Your task to perform on an android device: Look up the book "The Girl on the Train". Image 0: 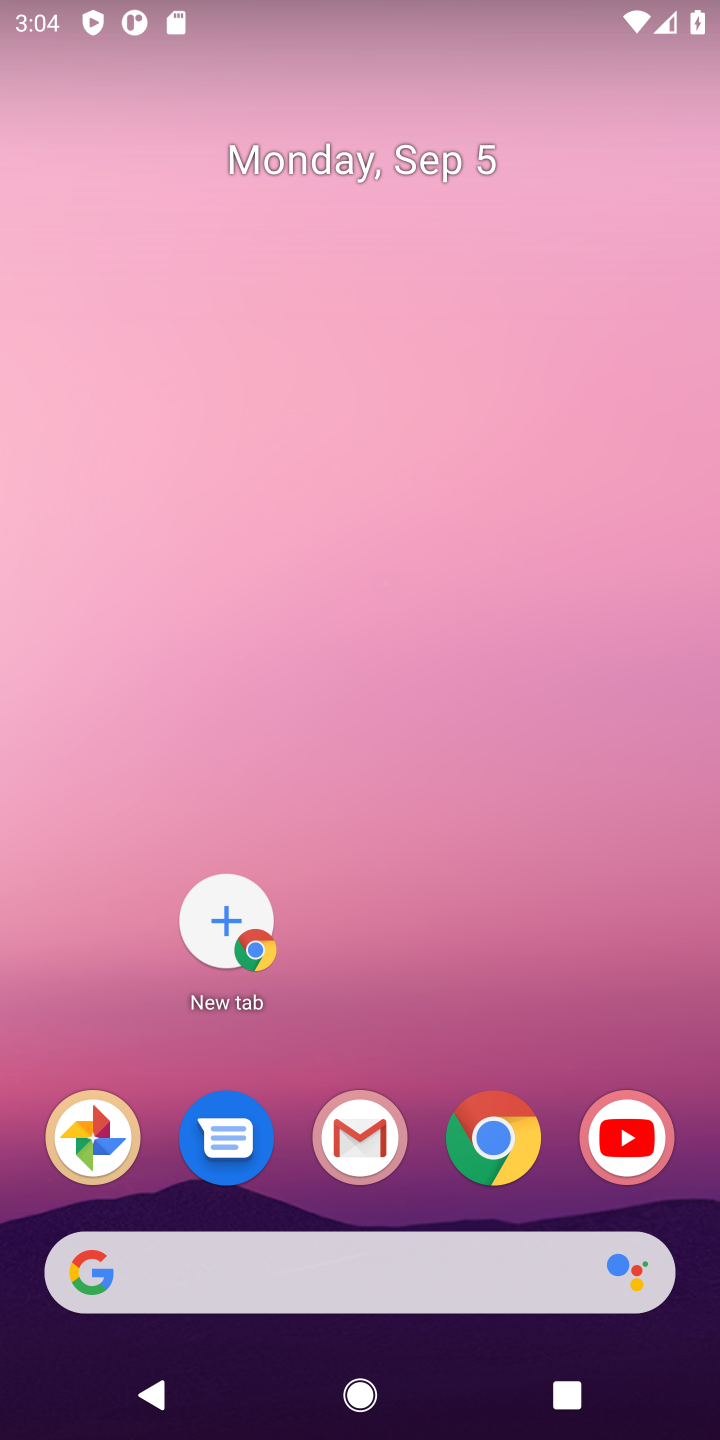
Step 0: click (484, 1143)
Your task to perform on an android device: Look up the book "The Girl on the Train". Image 1: 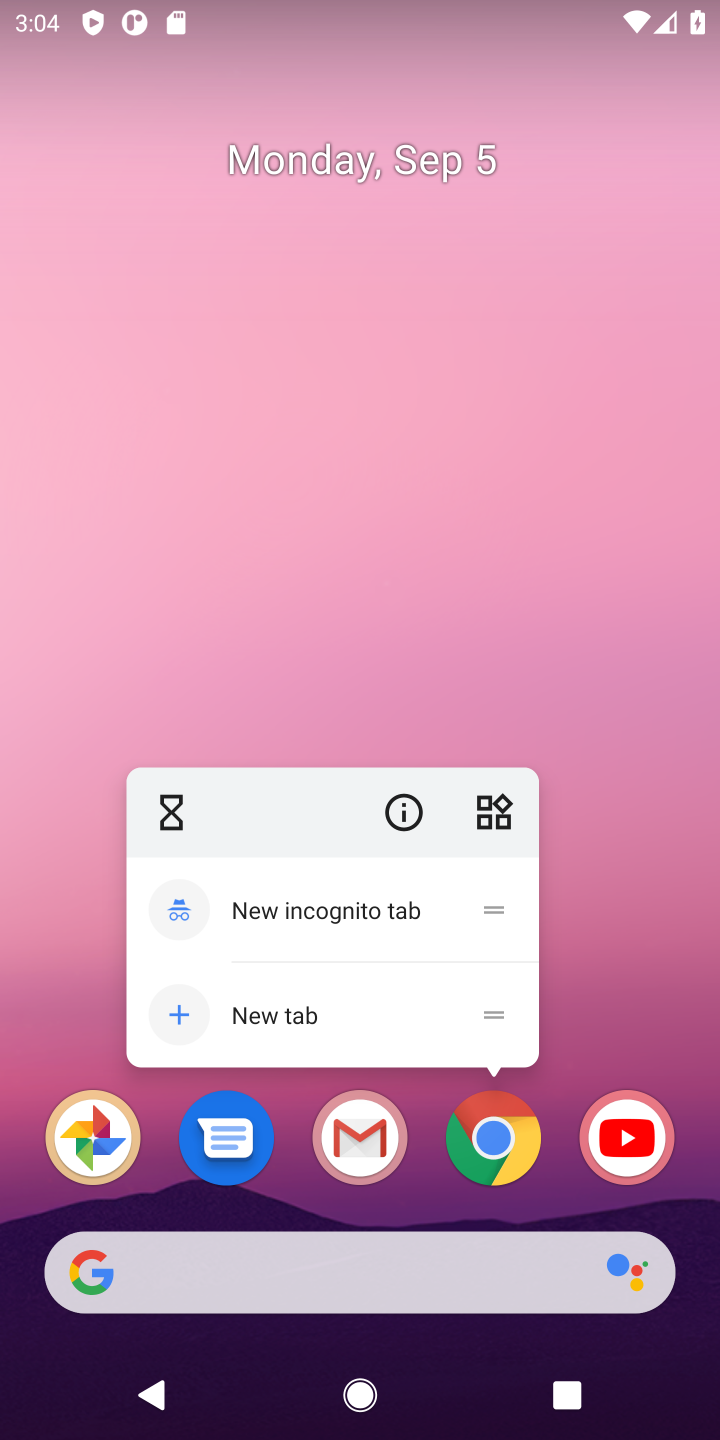
Step 1: click (522, 1151)
Your task to perform on an android device: Look up the book "The Girl on the Train". Image 2: 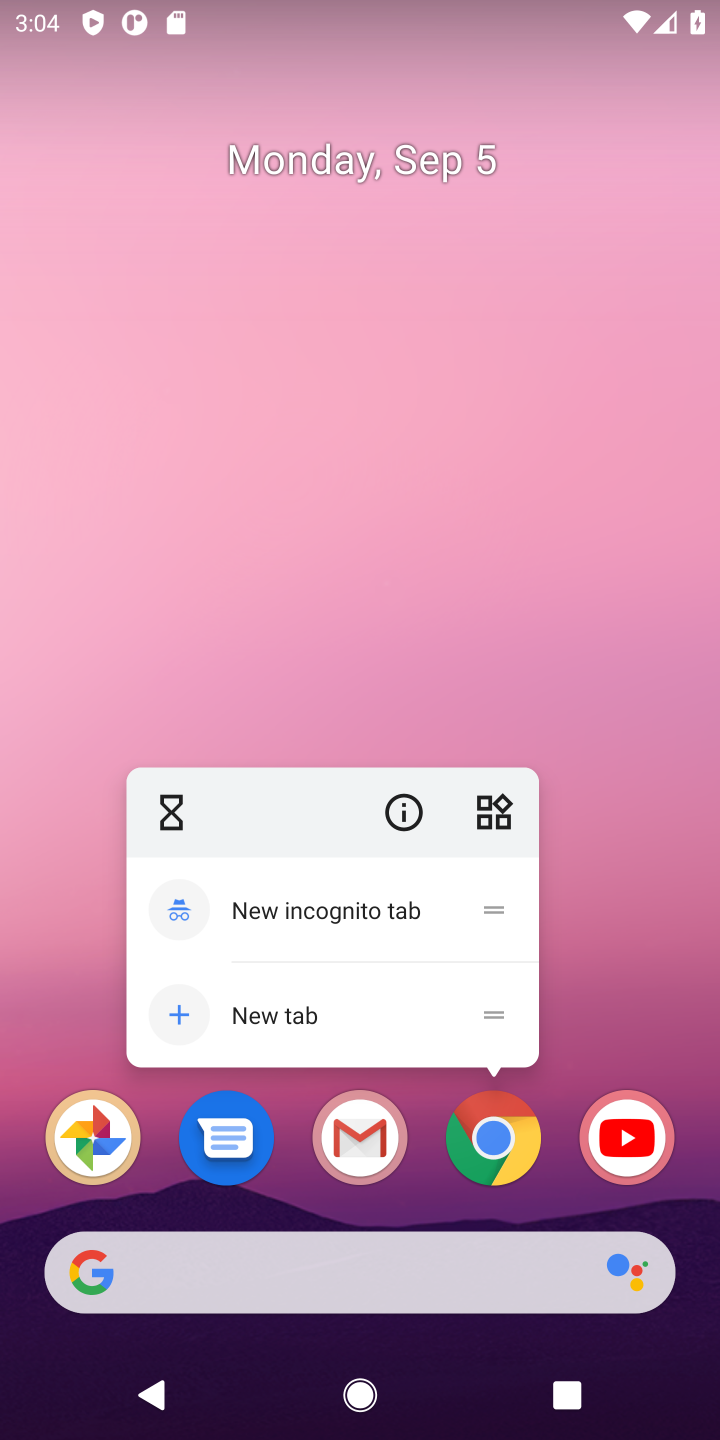
Step 2: click (522, 1151)
Your task to perform on an android device: Look up the book "The Girl on the Train". Image 3: 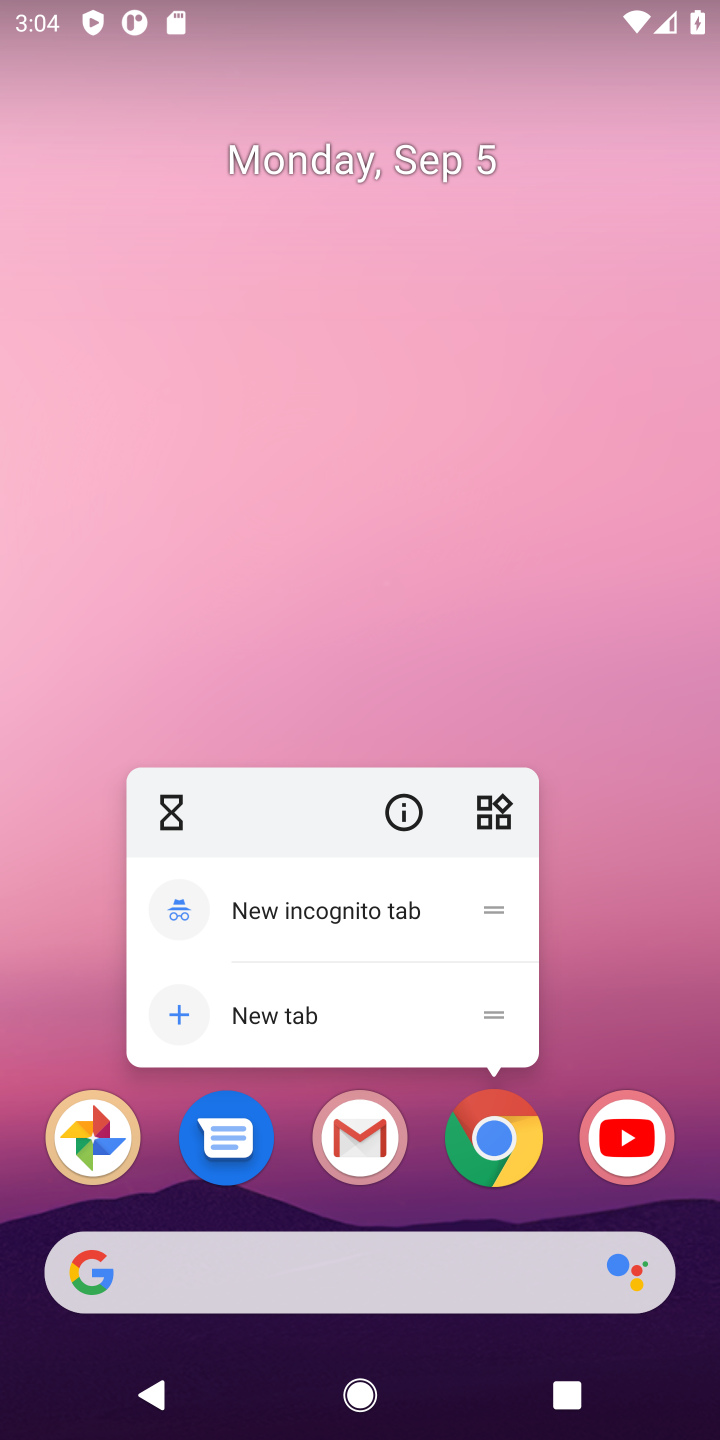
Step 3: click (503, 1146)
Your task to perform on an android device: Look up the book "The Girl on the Train". Image 4: 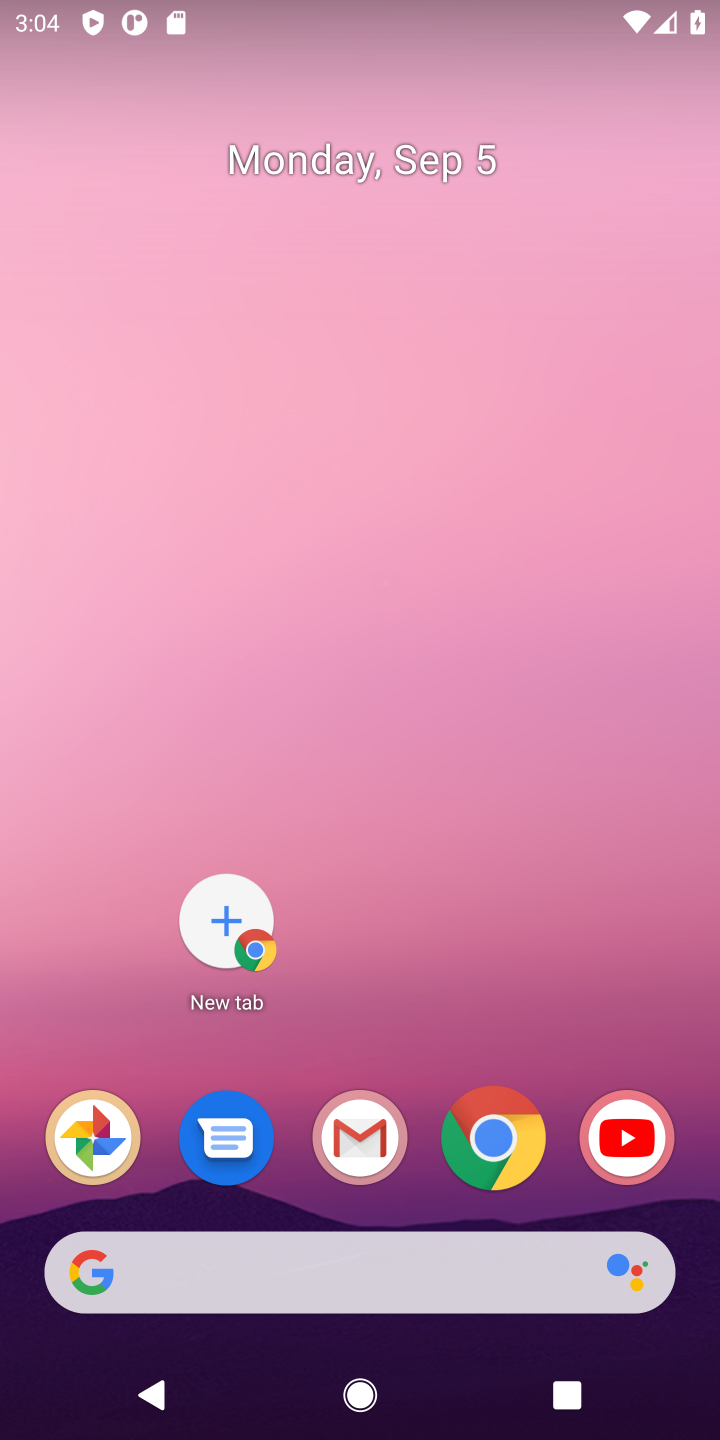
Step 4: click (501, 1150)
Your task to perform on an android device: Look up the book "The Girl on the Train". Image 5: 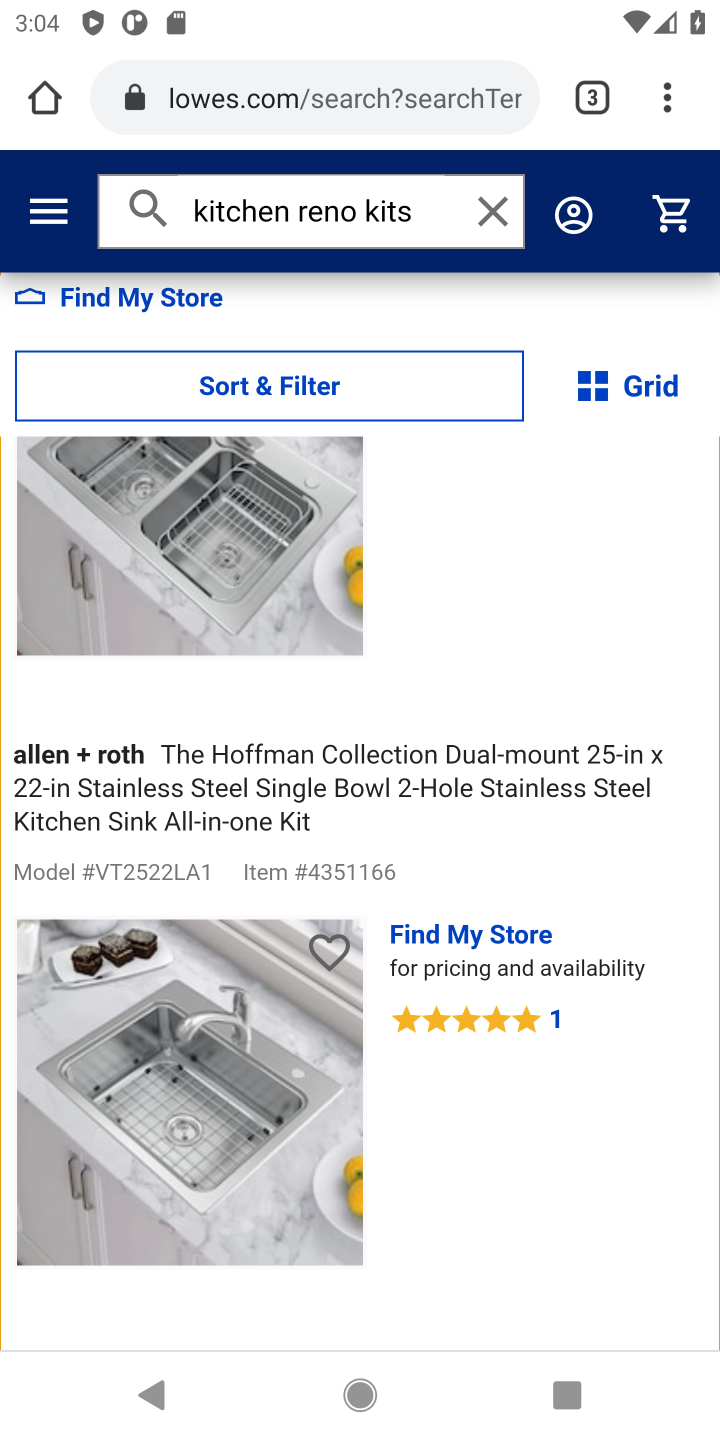
Step 5: click (305, 107)
Your task to perform on an android device: Look up the book "The Girl on the Train". Image 6: 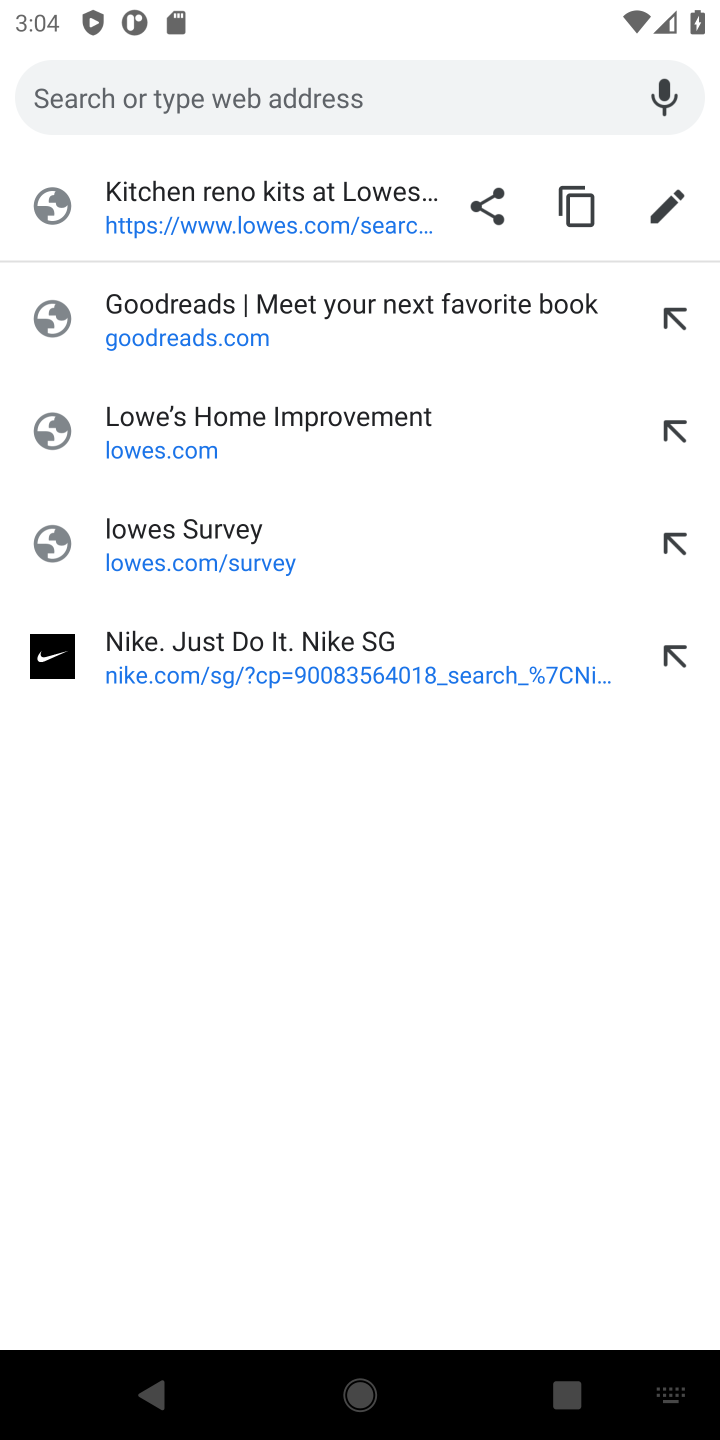
Step 6: type "the gril on the train"
Your task to perform on an android device: Look up the book "The Girl on the Train". Image 7: 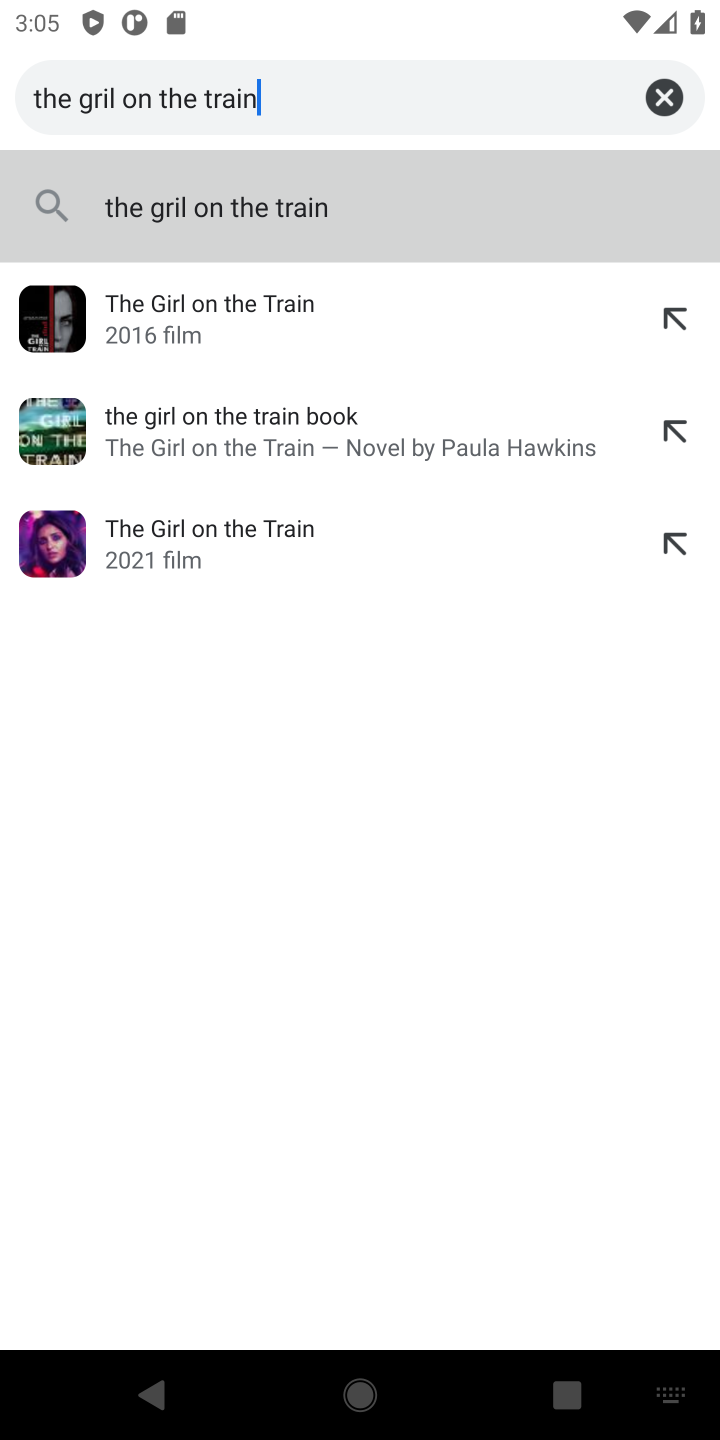
Step 7: click (231, 321)
Your task to perform on an android device: Look up the book "The Girl on the Train". Image 8: 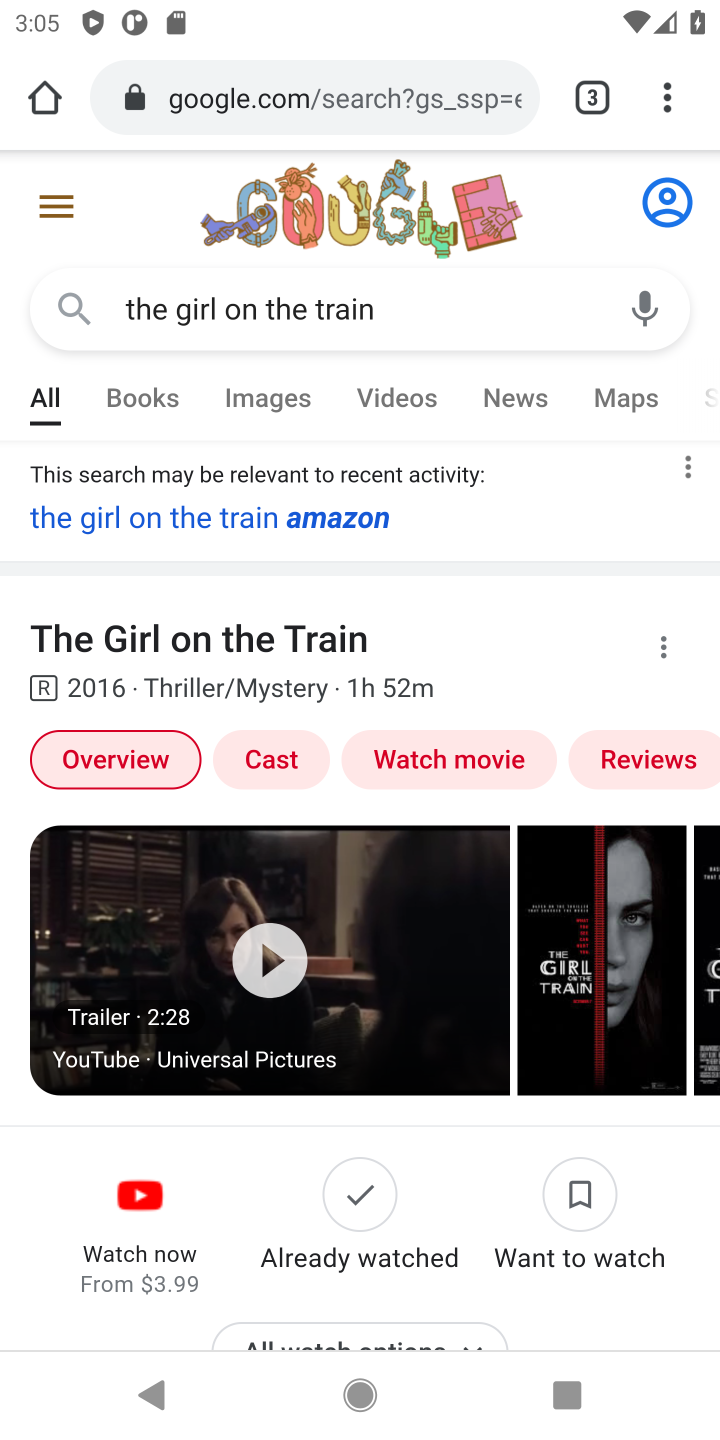
Step 8: drag from (458, 567) to (446, 477)
Your task to perform on an android device: Look up the book "The Girl on the Train". Image 9: 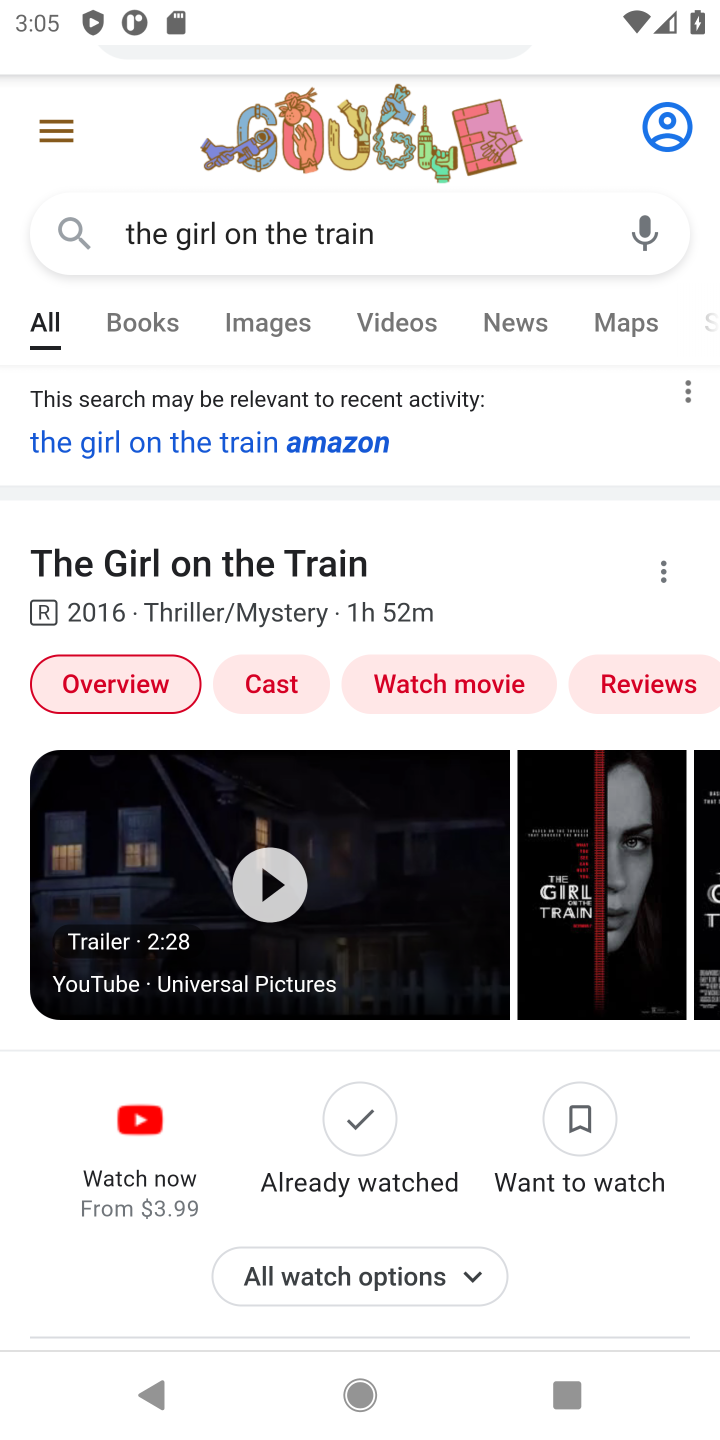
Step 9: drag from (486, 1041) to (548, 401)
Your task to perform on an android device: Look up the book "The Girl on the Train". Image 10: 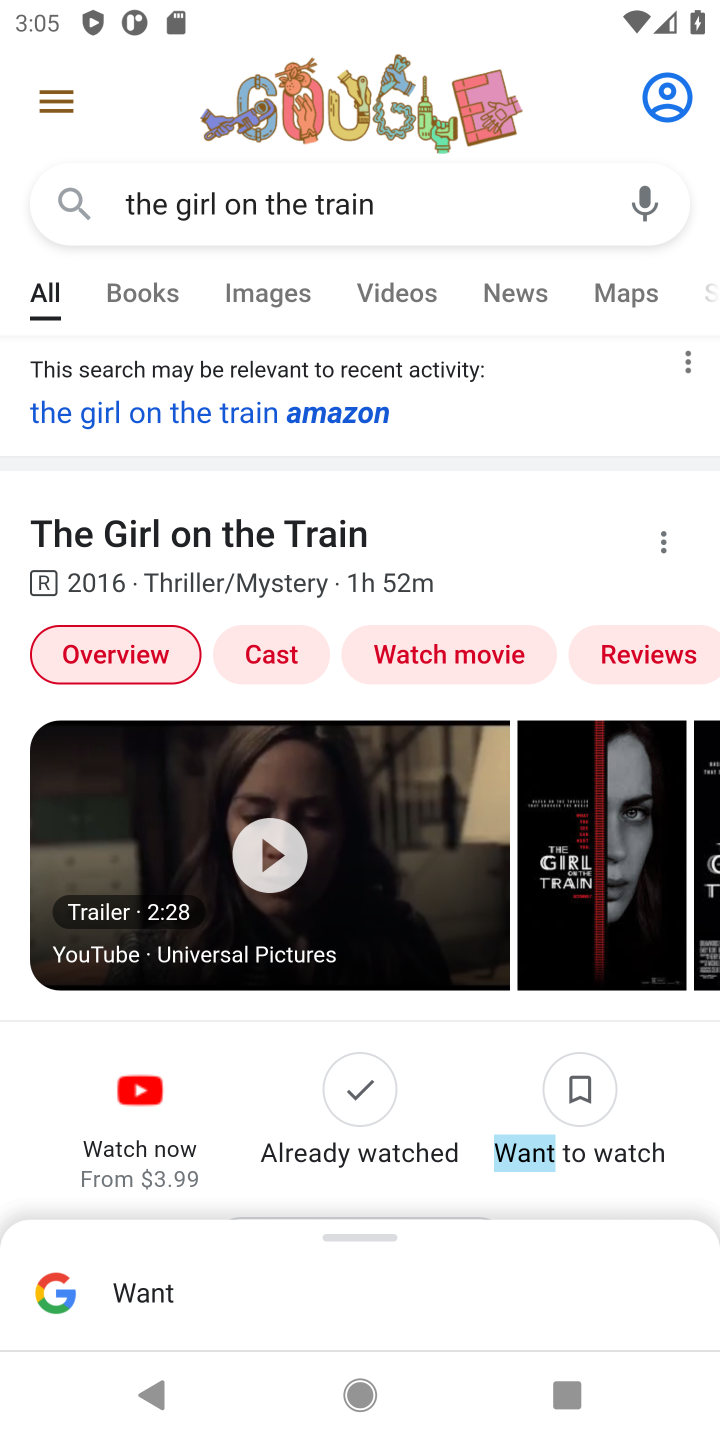
Step 10: click (686, 510)
Your task to perform on an android device: Look up the book "The Girl on the Train". Image 11: 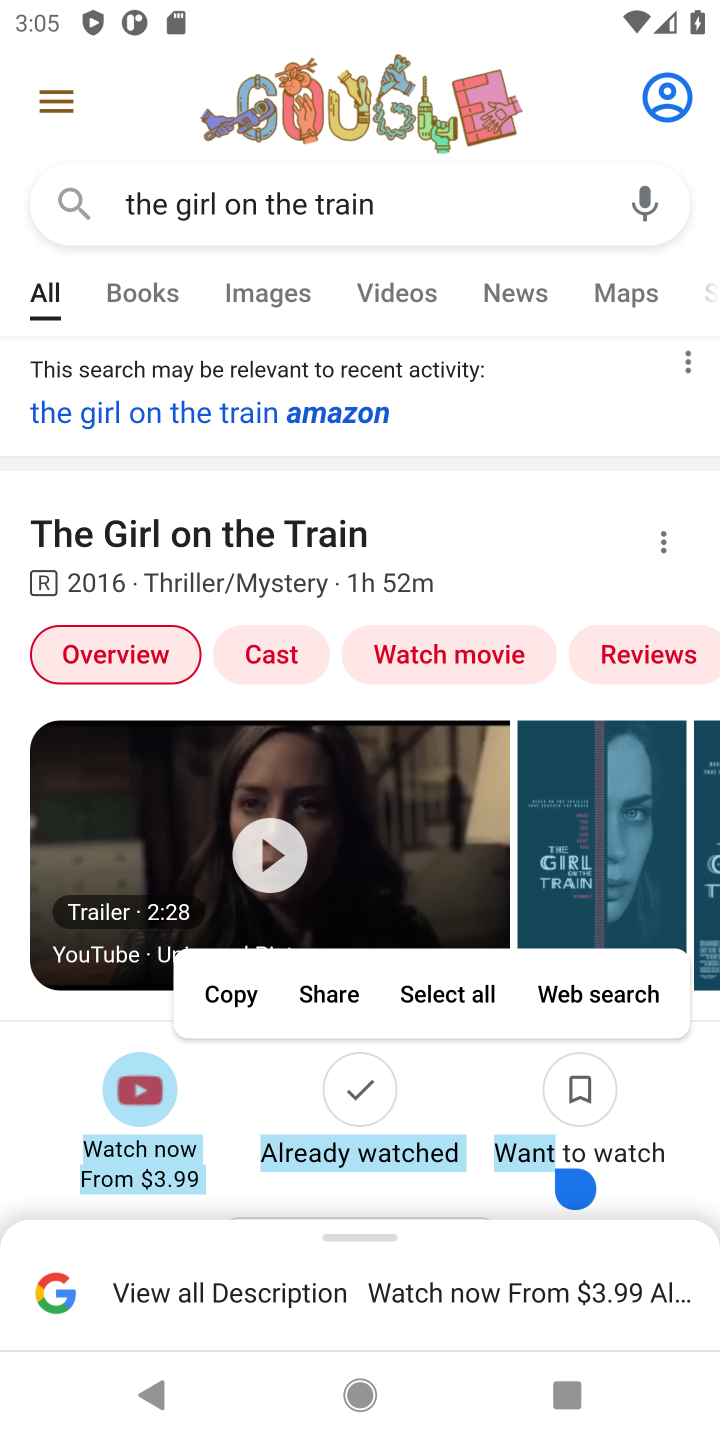
Step 11: click (633, 1075)
Your task to perform on an android device: Look up the book "The Girl on the Train". Image 12: 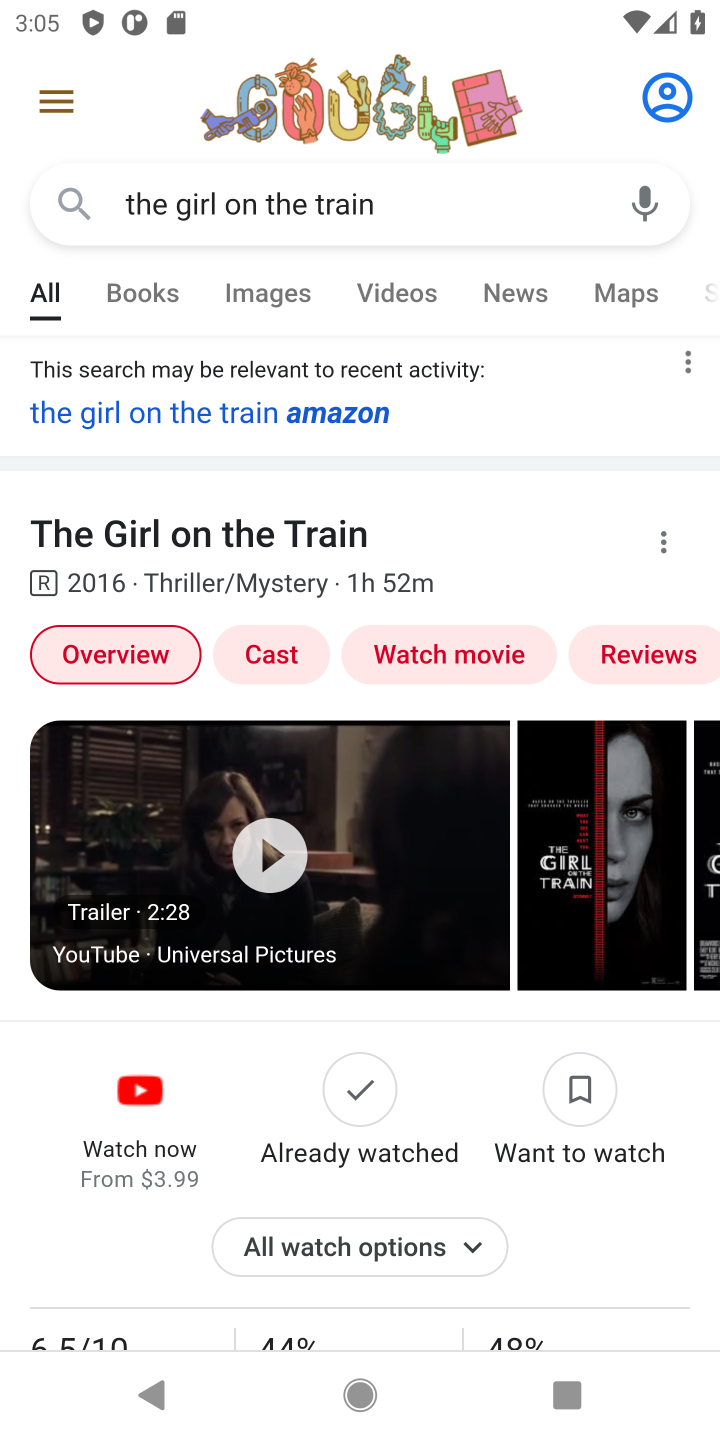
Step 12: drag from (69, 1044) to (176, 369)
Your task to perform on an android device: Look up the book "The Girl on the Train". Image 13: 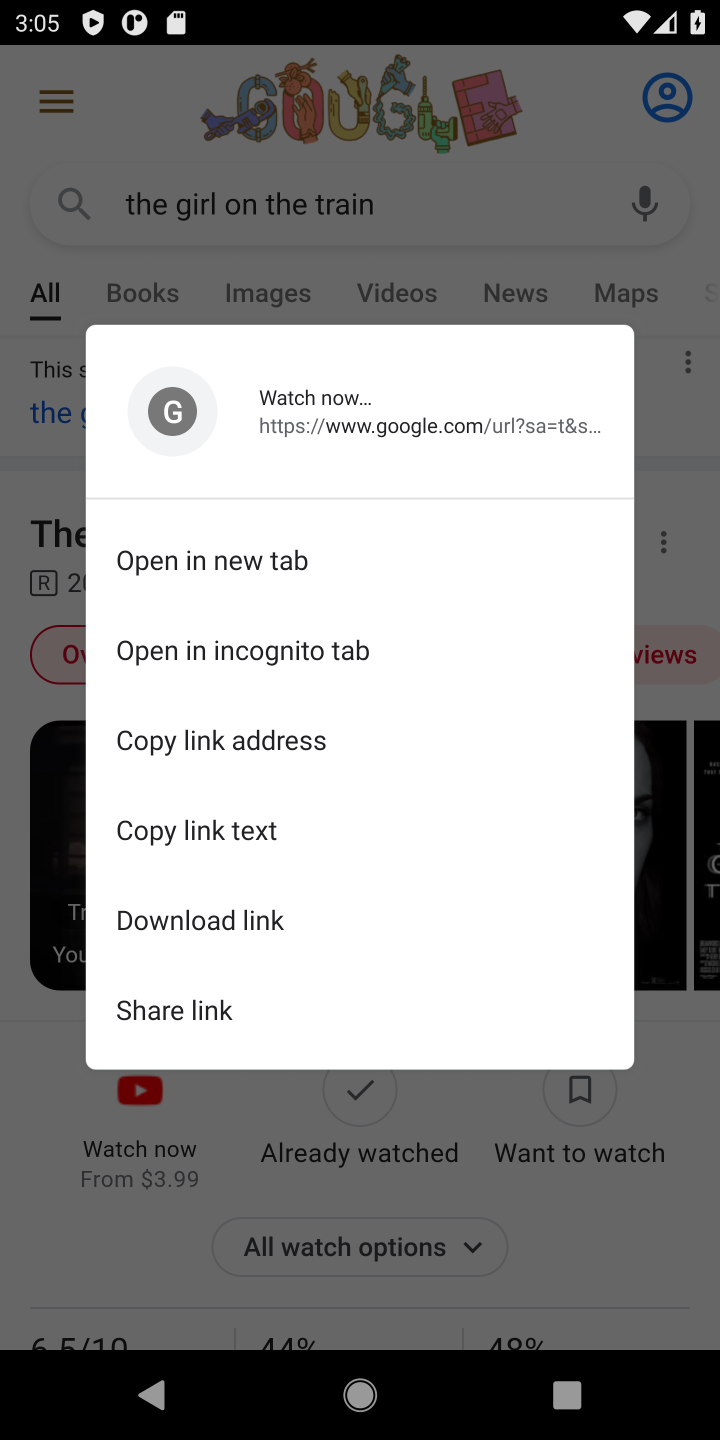
Step 13: click (702, 789)
Your task to perform on an android device: Look up the book "The Girl on the Train". Image 14: 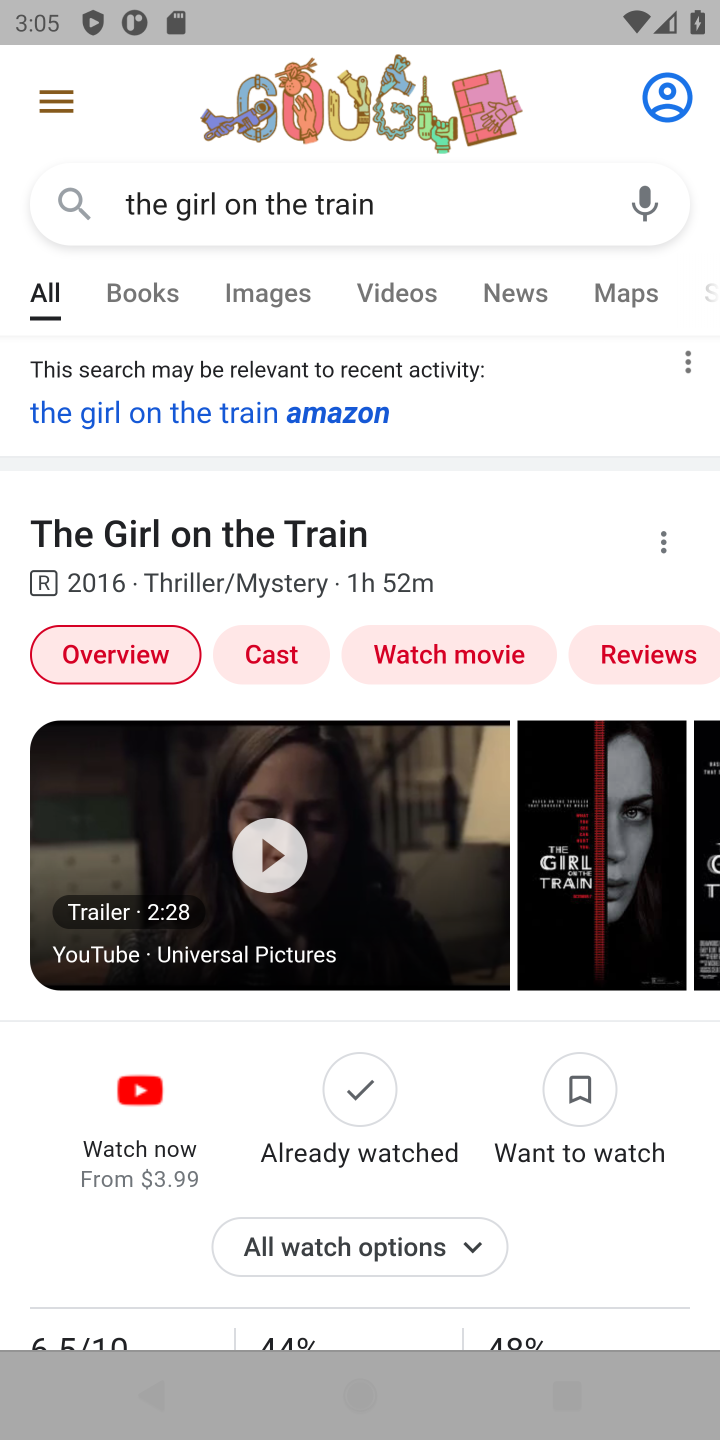
Step 14: click (668, 730)
Your task to perform on an android device: Look up the book "The Girl on the Train". Image 15: 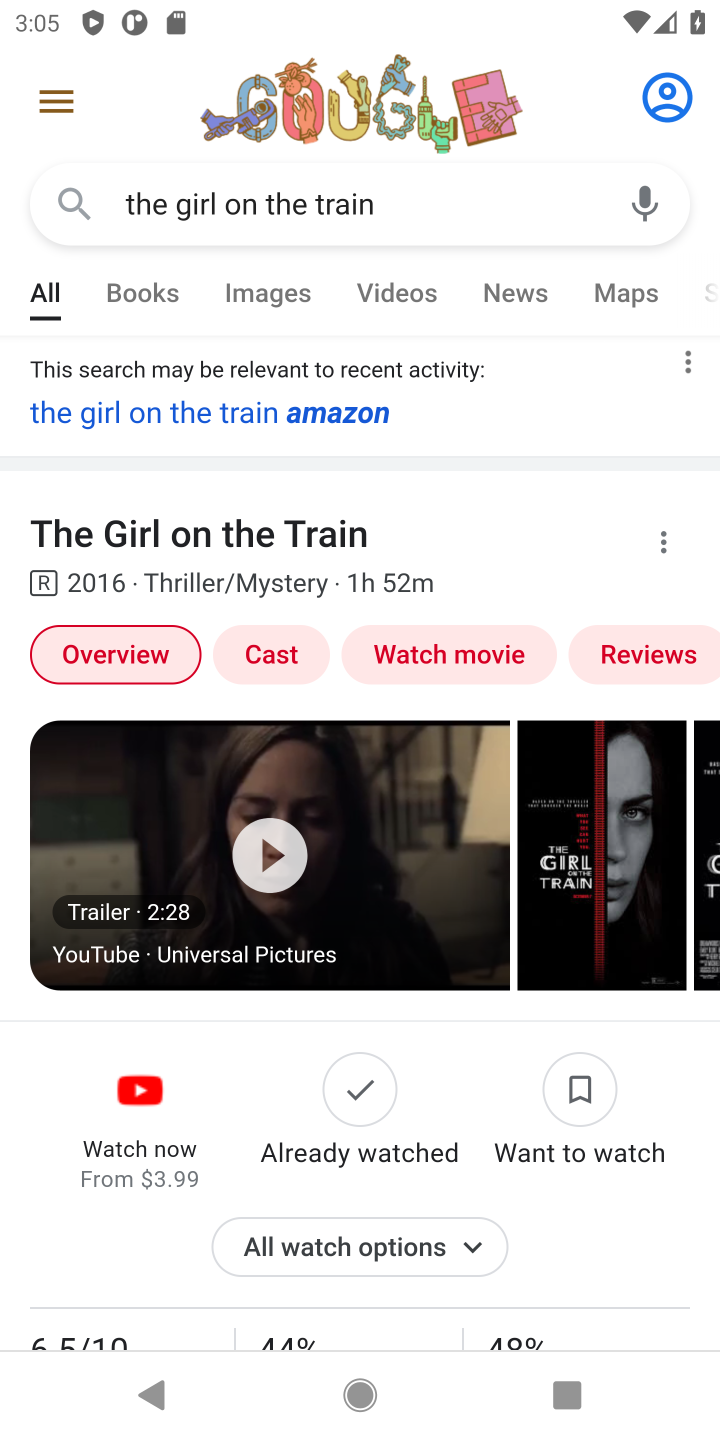
Step 15: task complete